Your task to perform on an android device: Go to ESPN.com Image 0: 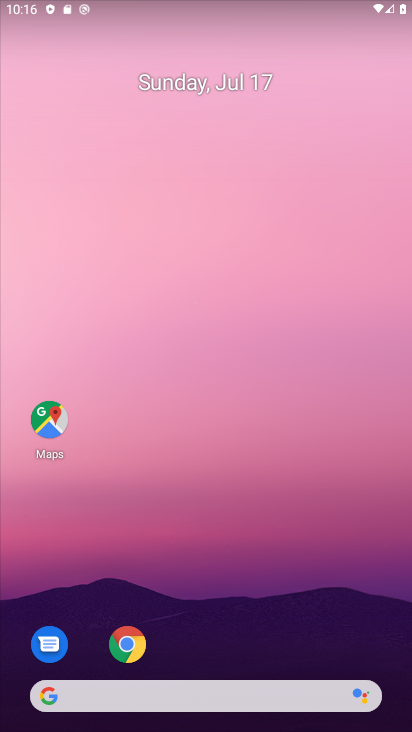
Step 0: drag from (273, 489) to (268, 76)
Your task to perform on an android device: Go to ESPN.com Image 1: 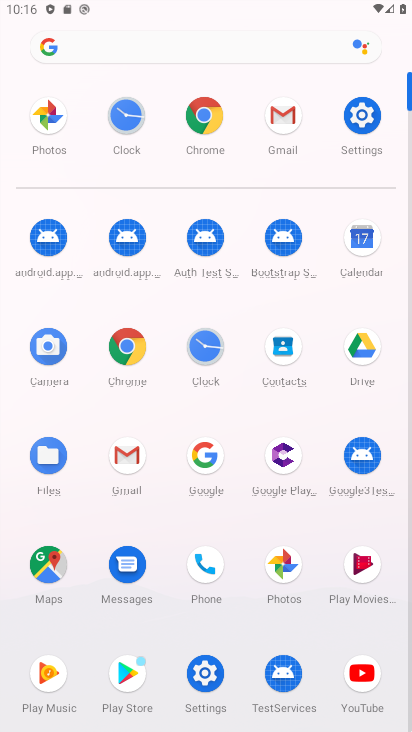
Step 1: click (216, 102)
Your task to perform on an android device: Go to ESPN.com Image 2: 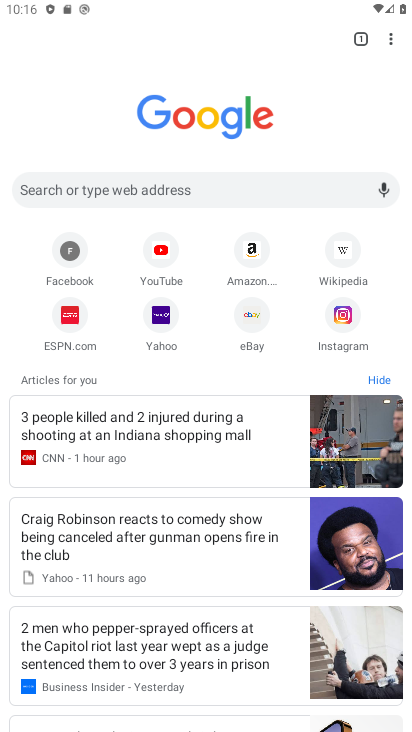
Step 2: click (72, 300)
Your task to perform on an android device: Go to ESPN.com Image 3: 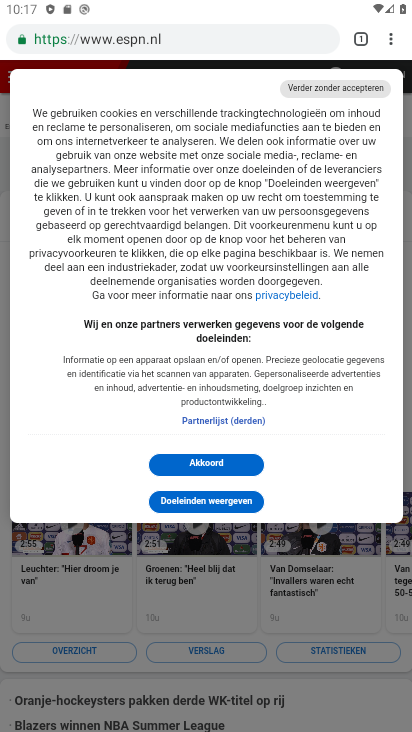
Step 3: task complete